Your task to perform on an android device: open app "Nova Launcher" Image 0: 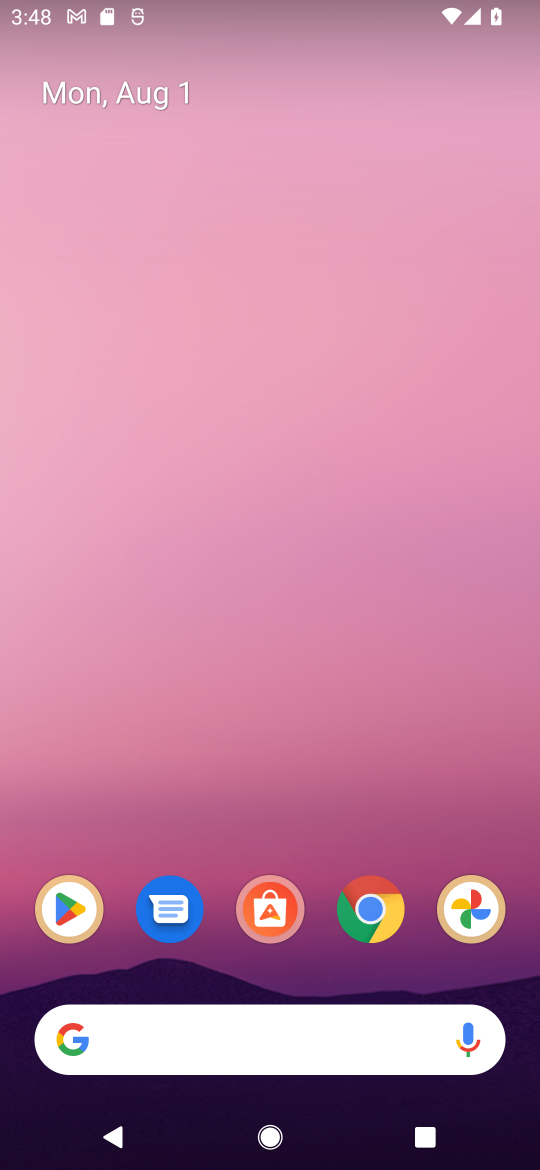
Step 0: click (67, 909)
Your task to perform on an android device: open app "Nova Launcher" Image 1: 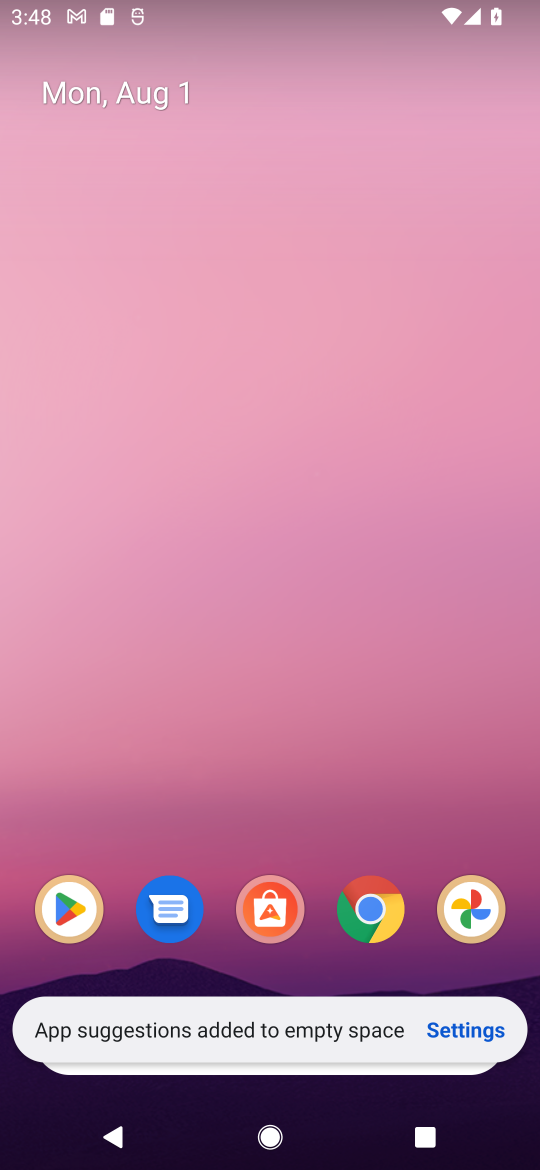
Step 1: click (67, 909)
Your task to perform on an android device: open app "Nova Launcher" Image 2: 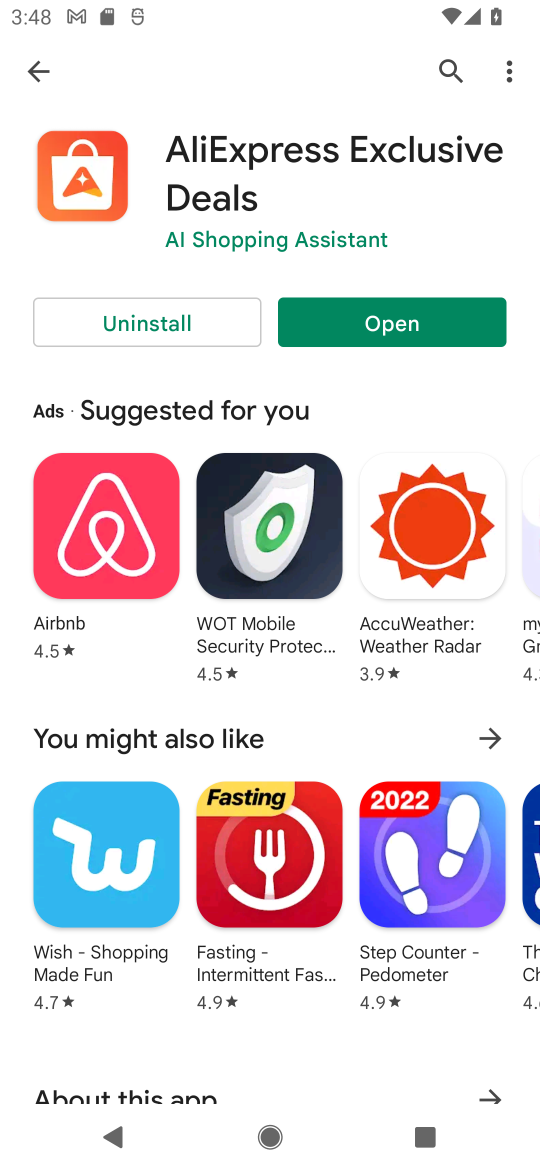
Step 2: click (41, 63)
Your task to perform on an android device: open app "Nova Launcher" Image 3: 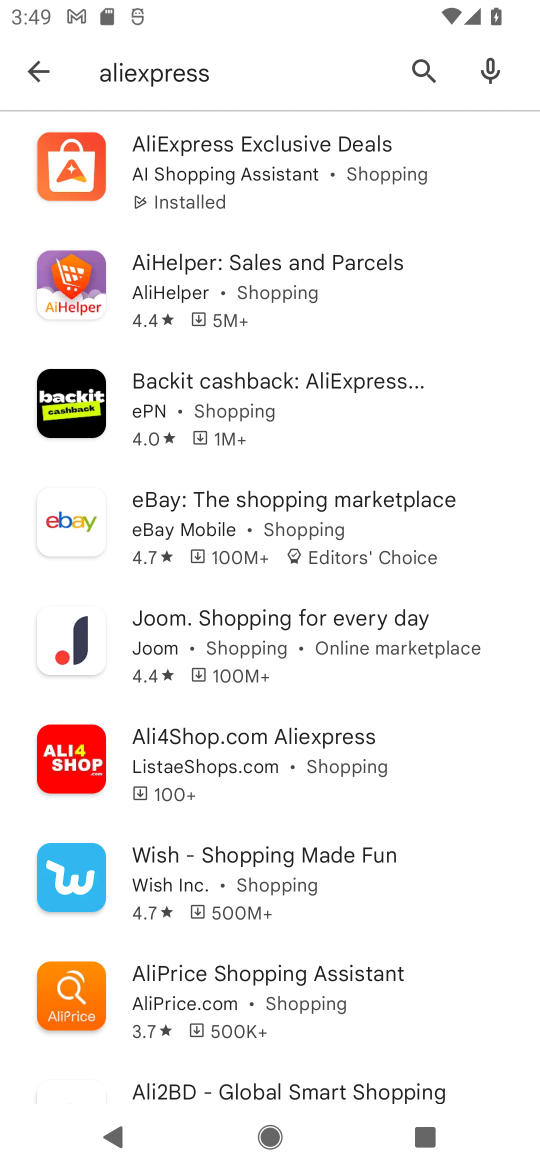
Step 3: click (240, 79)
Your task to perform on an android device: open app "Nova Launcher" Image 4: 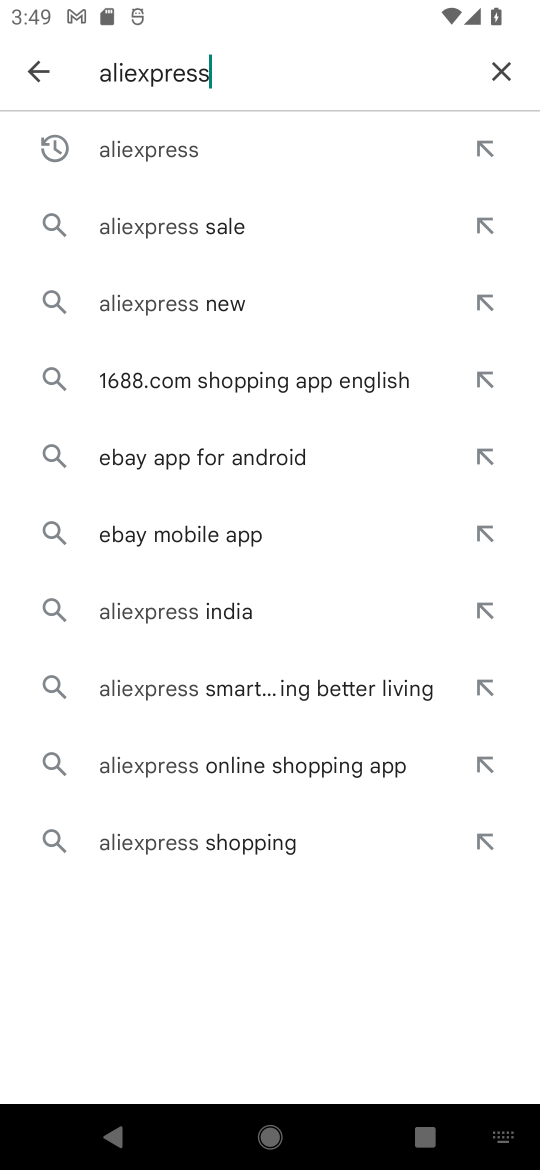
Step 4: click (503, 69)
Your task to perform on an android device: open app "Nova Launcher" Image 5: 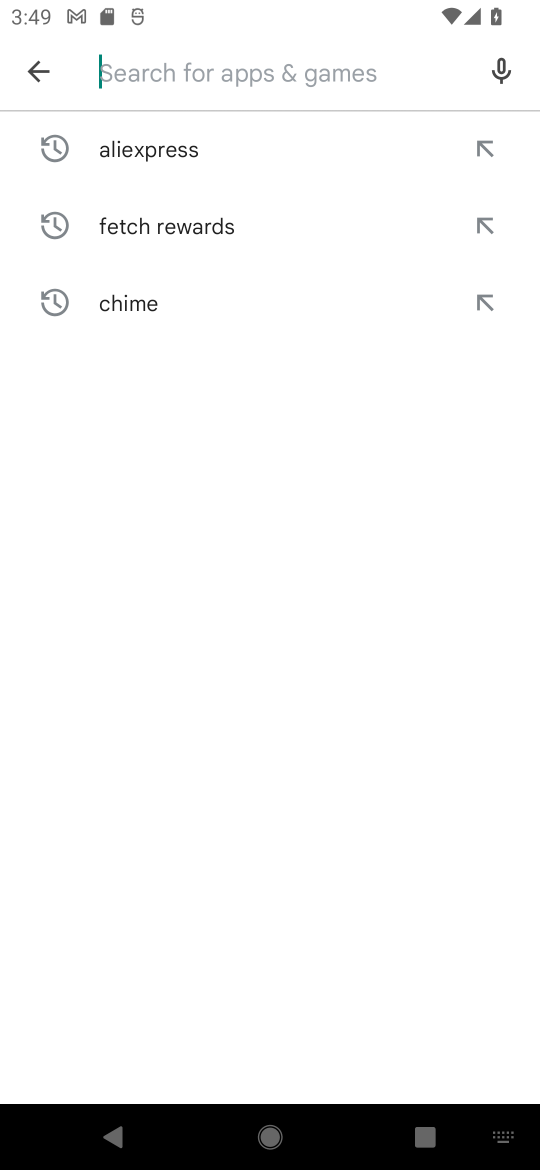
Step 5: type "NOva launcher"
Your task to perform on an android device: open app "Nova Launcher" Image 6: 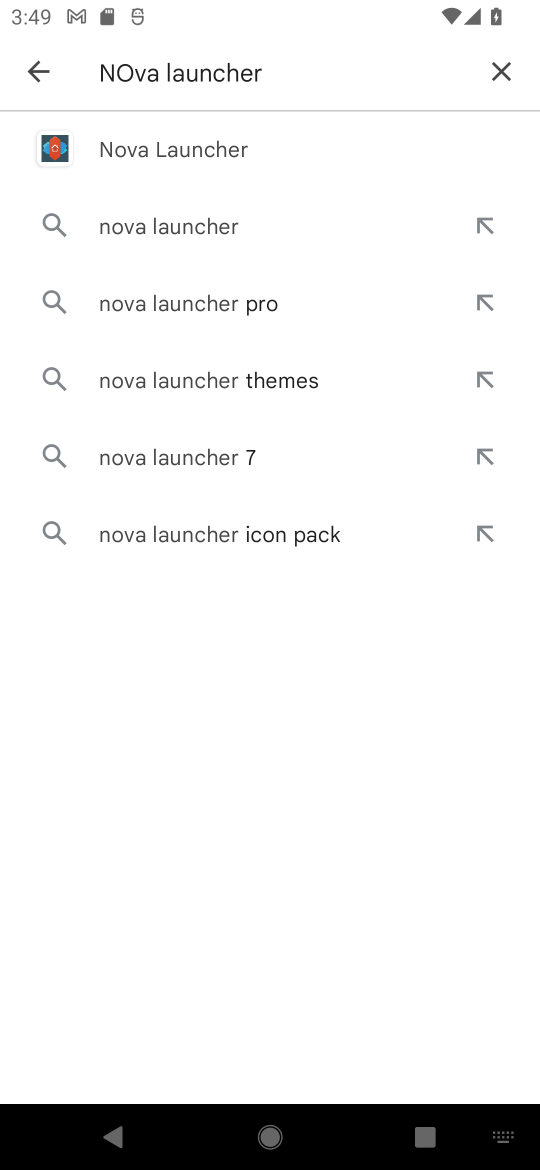
Step 6: click (173, 156)
Your task to perform on an android device: open app "Nova Launcher" Image 7: 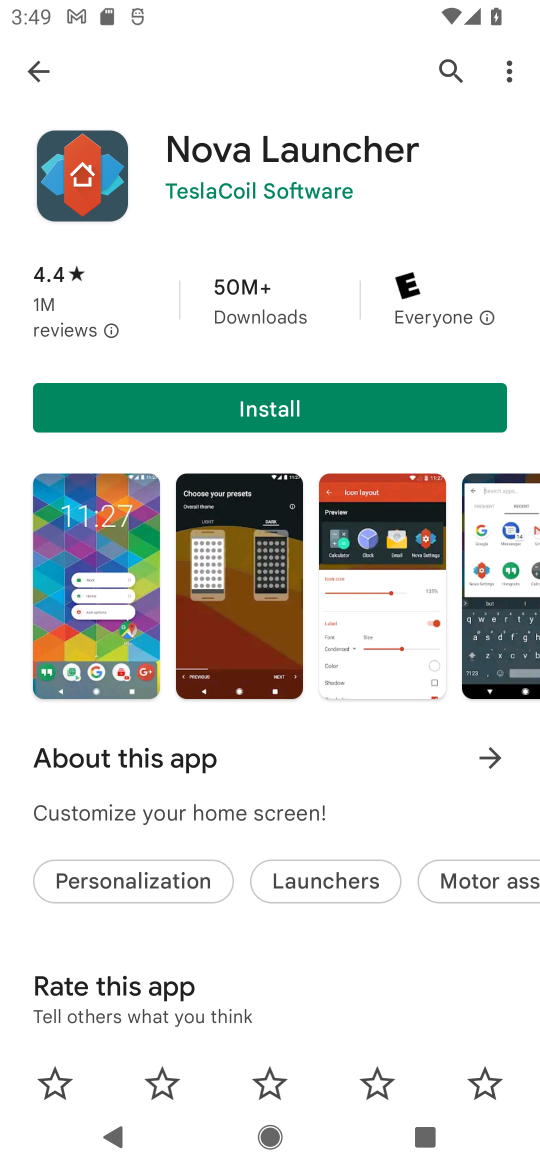
Step 7: task complete